Your task to perform on an android device: Open network settings Image 0: 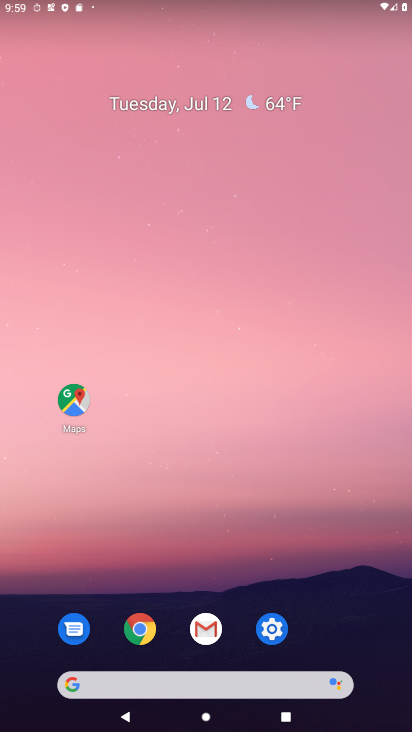
Step 0: click (264, 633)
Your task to perform on an android device: Open network settings Image 1: 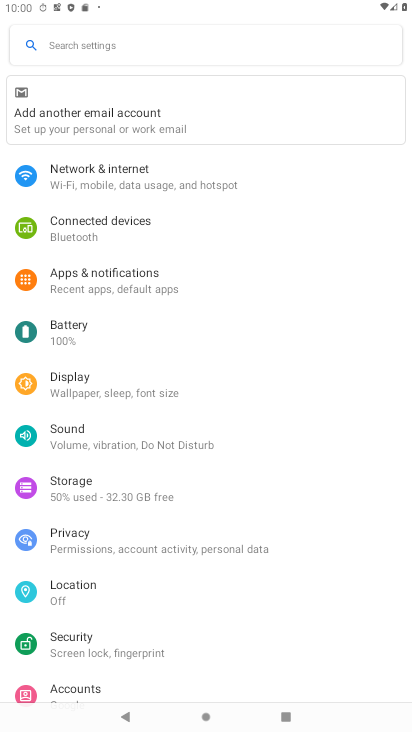
Step 1: click (132, 162)
Your task to perform on an android device: Open network settings Image 2: 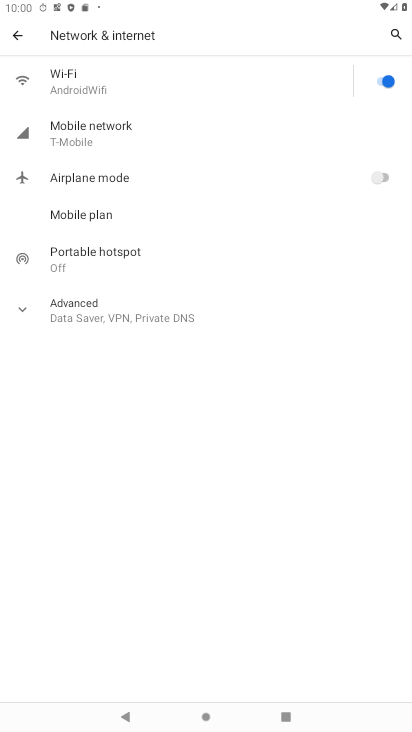
Step 2: task complete